Your task to perform on an android device: Go to Android settings Image 0: 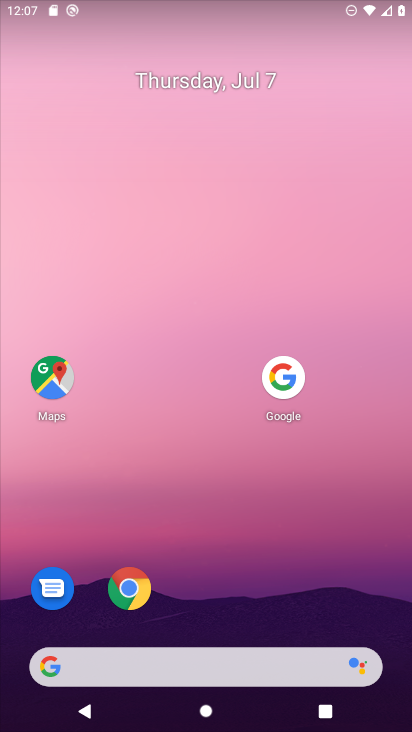
Step 0: drag from (252, 666) to (262, 106)
Your task to perform on an android device: Go to Android settings Image 1: 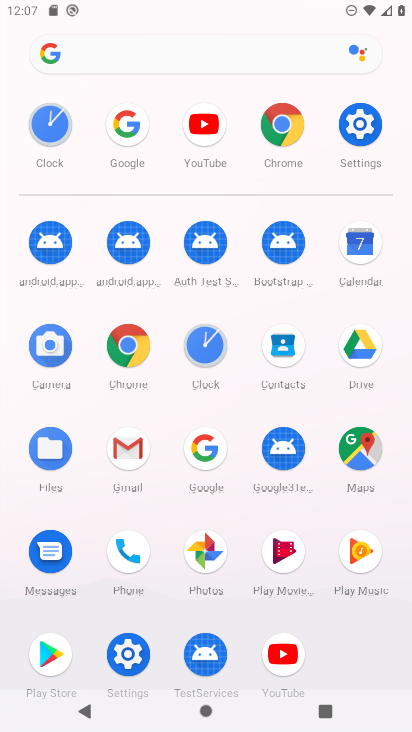
Step 1: click (364, 127)
Your task to perform on an android device: Go to Android settings Image 2: 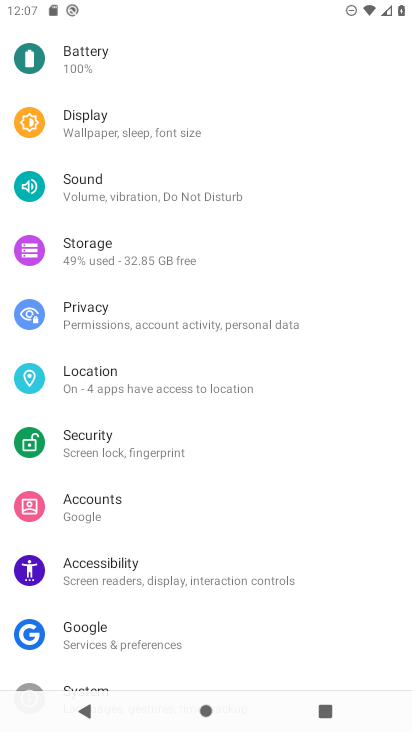
Step 2: task complete